Your task to perform on an android device: check data usage Image 0: 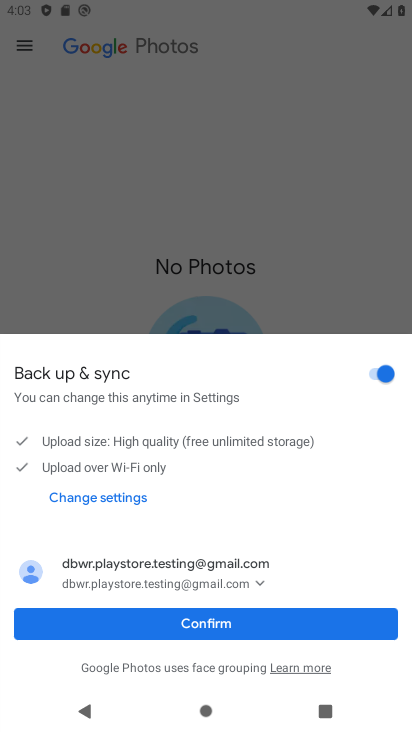
Step 0: press home button
Your task to perform on an android device: check data usage Image 1: 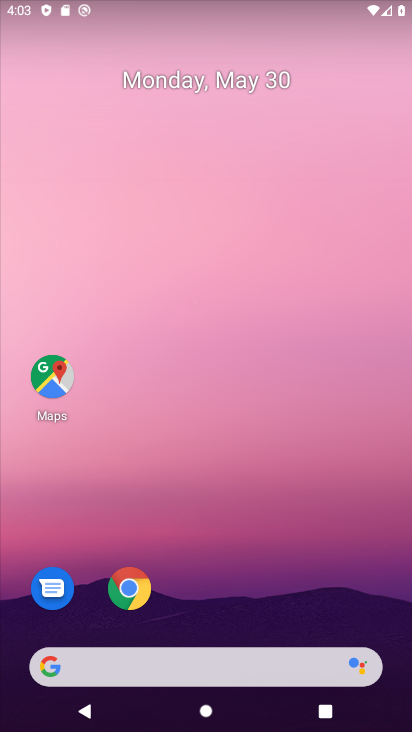
Step 1: drag from (274, 586) to (221, 227)
Your task to perform on an android device: check data usage Image 2: 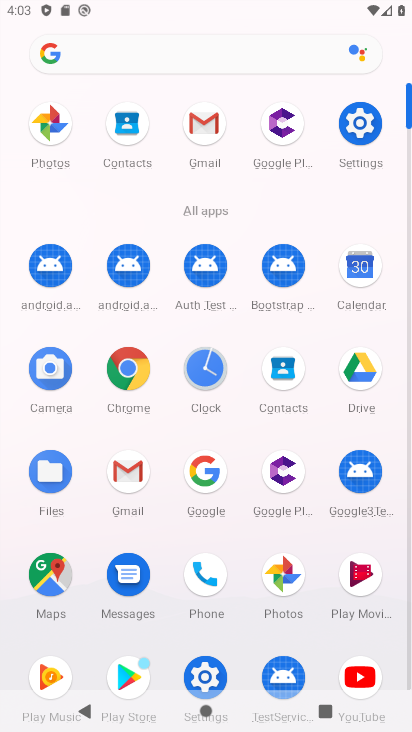
Step 2: click (357, 131)
Your task to perform on an android device: check data usage Image 3: 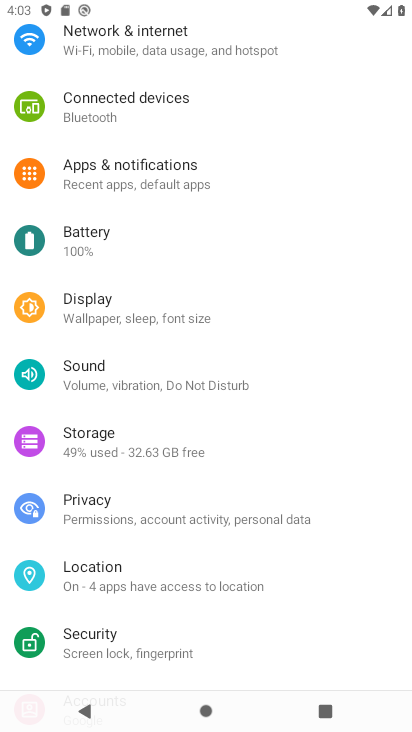
Step 3: click (204, 52)
Your task to perform on an android device: check data usage Image 4: 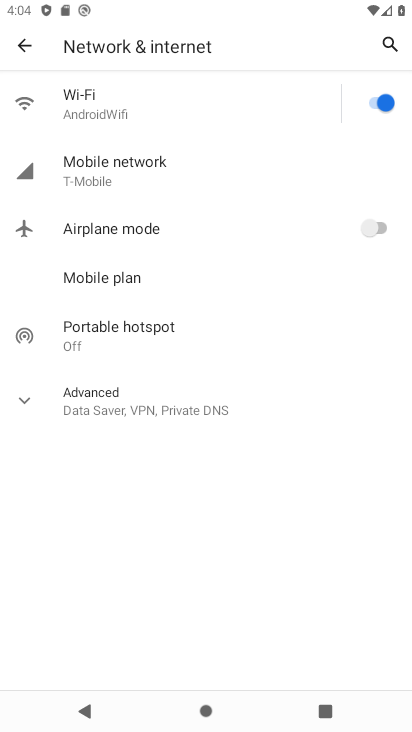
Step 4: click (94, 177)
Your task to perform on an android device: check data usage Image 5: 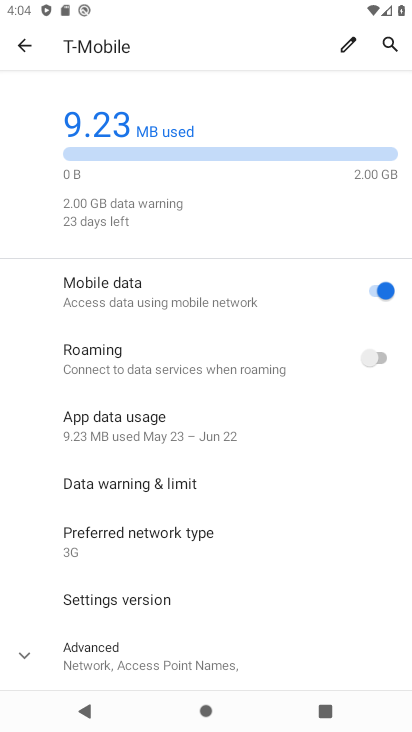
Step 5: task complete